Your task to perform on an android device: toggle improve location accuracy Image 0: 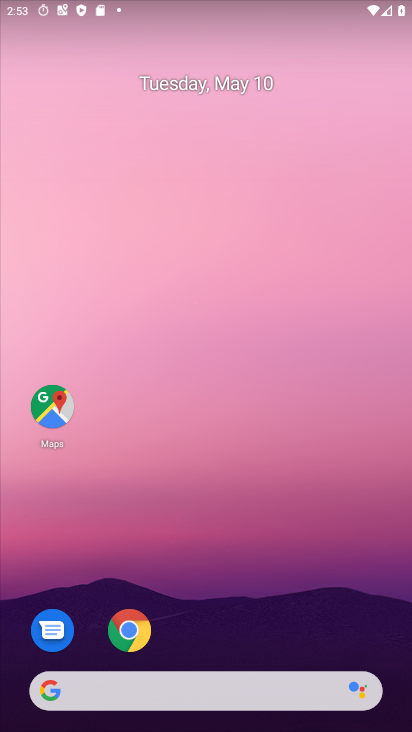
Step 0: drag from (256, 581) to (262, 505)
Your task to perform on an android device: toggle improve location accuracy Image 1: 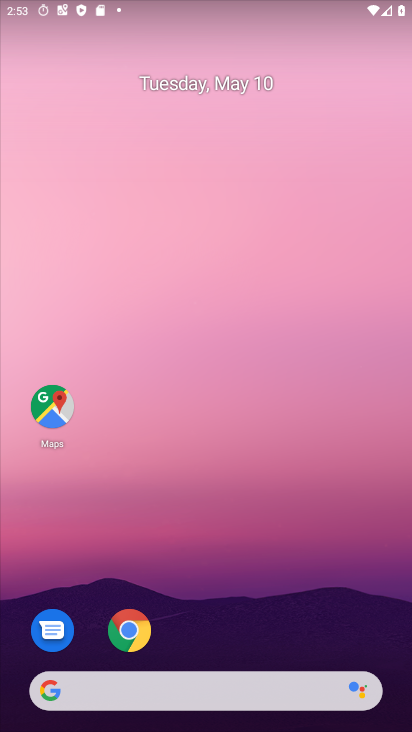
Step 1: drag from (404, 193) to (395, 288)
Your task to perform on an android device: toggle improve location accuracy Image 2: 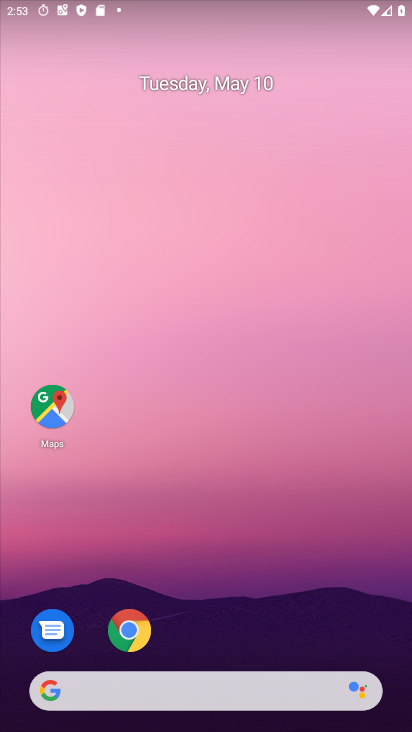
Step 2: drag from (311, 560) to (339, 30)
Your task to perform on an android device: toggle improve location accuracy Image 3: 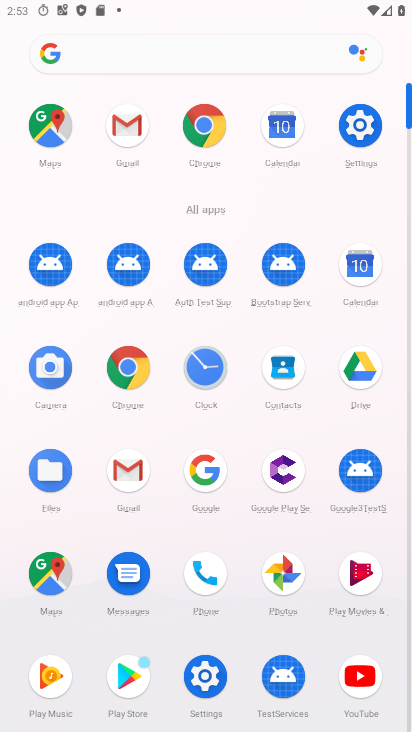
Step 3: click (349, 114)
Your task to perform on an android device: toggle improve location accuracy Image 4: 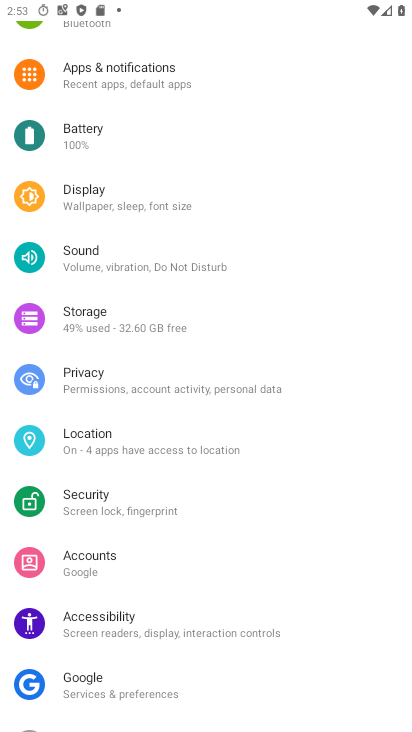
Step 4: click (136, 437)
Your task to perform on an android device: toggle improve location accuracy Image 5: 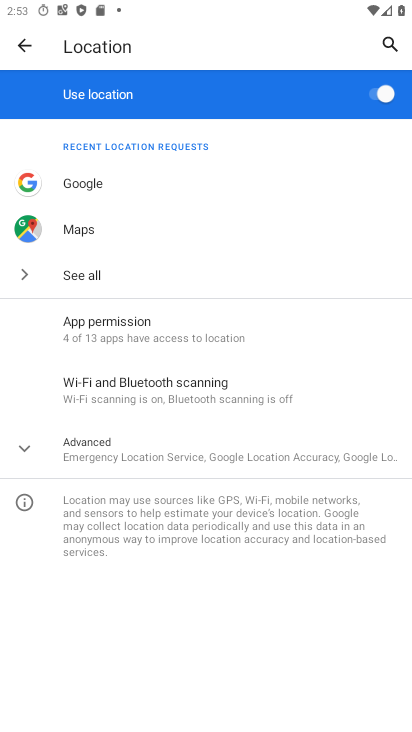
Step 5: click (148, 444)
Your task to perform on an android device: toggle improve location accuracy Image 6: 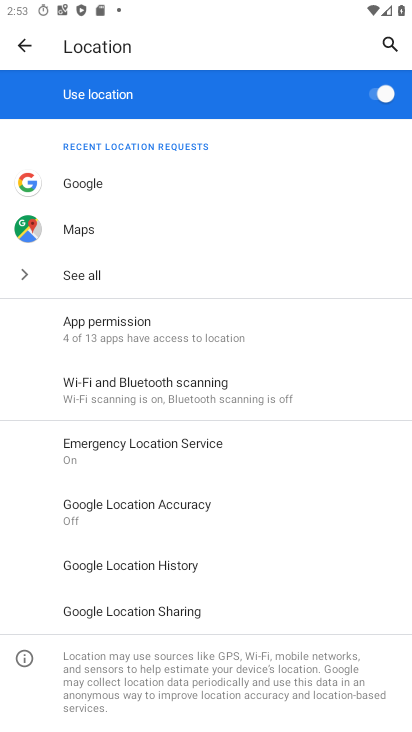
Step 6: click (150, 444)
Your task to perform on an android device: toggle improve location accuracy Image 7: 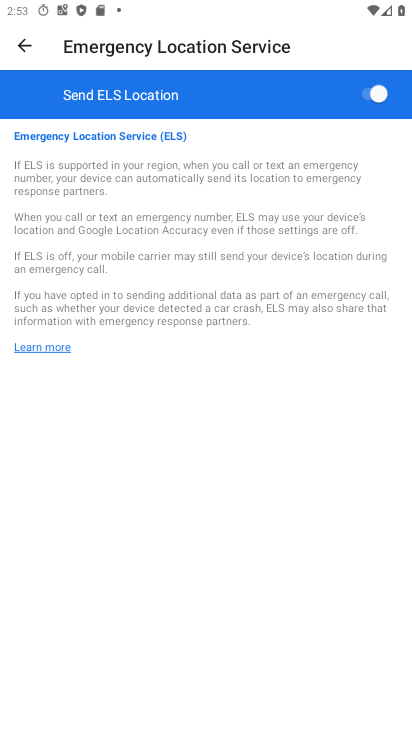
Step 7: click (151, 443)
Your task to perform on an android device: toggle improve location accuracy Image 8: 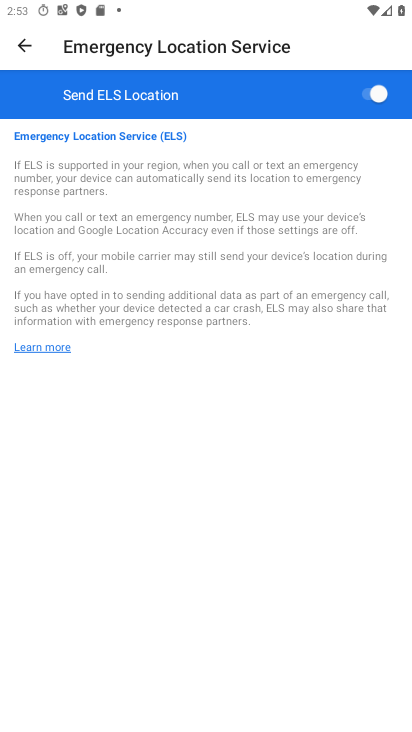
Step 8: click (27, 38)
Your task to perform on an android device: toggle improve location accuracy Image 9: 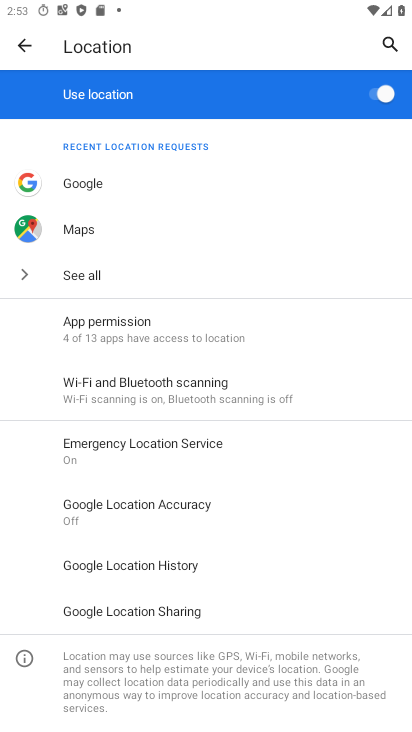
Step 9: click (188, 504)
Your task to perform on an android device: toggle improve location accuracy Image 10: 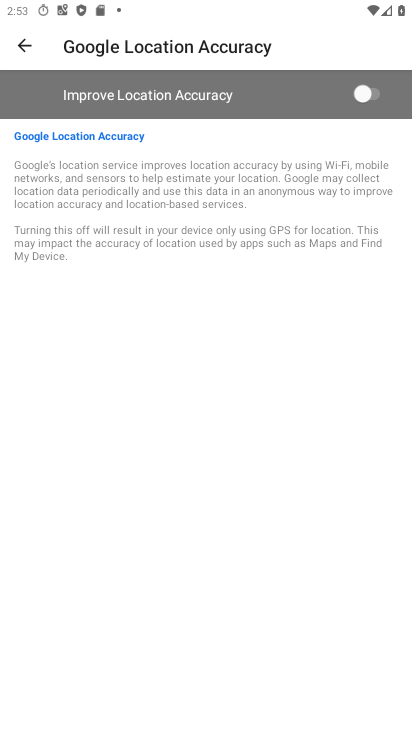
Step 10: click (369, 93)
Your task to perform on an android device: toggle improve location accuracy Image 11: 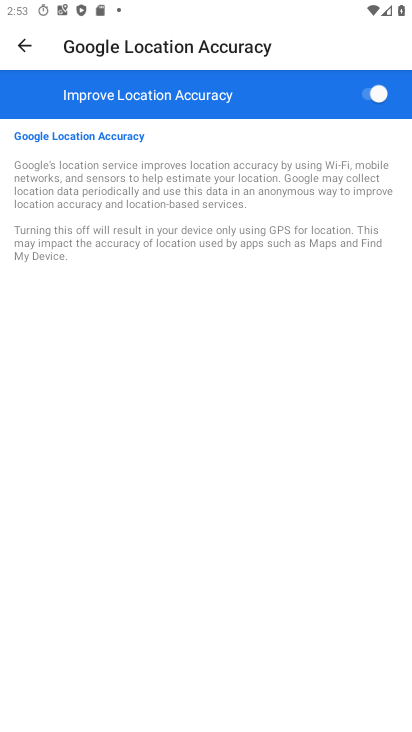
Step 11: task complete